Your task to perform on an android device: remove spam from my inbox in the gmail app Image 0: 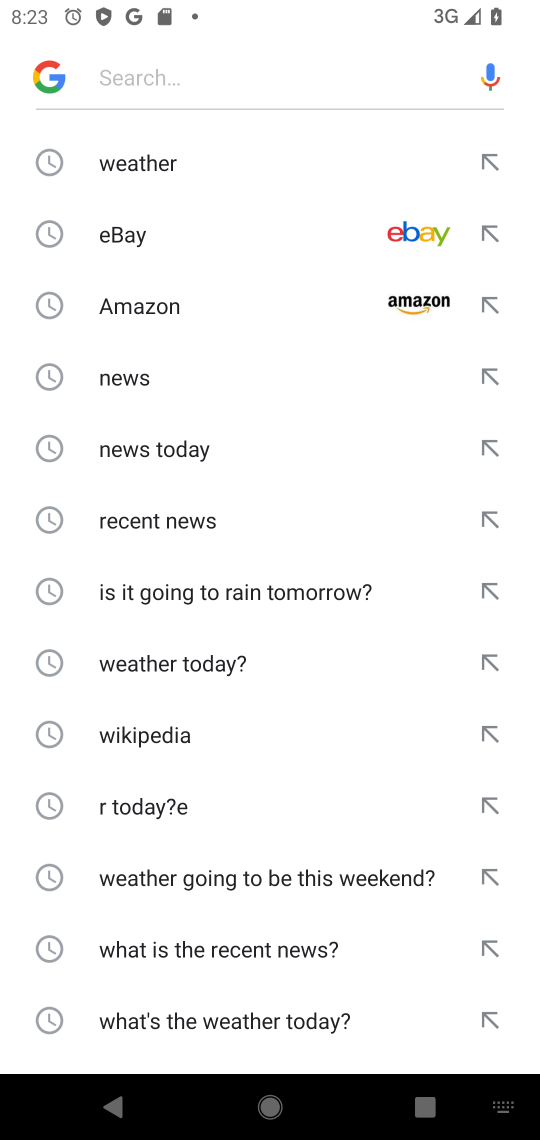
Step 0: press home button
Your task to perform on an android device: remove spam from my inbox in the gmail app Image 1: 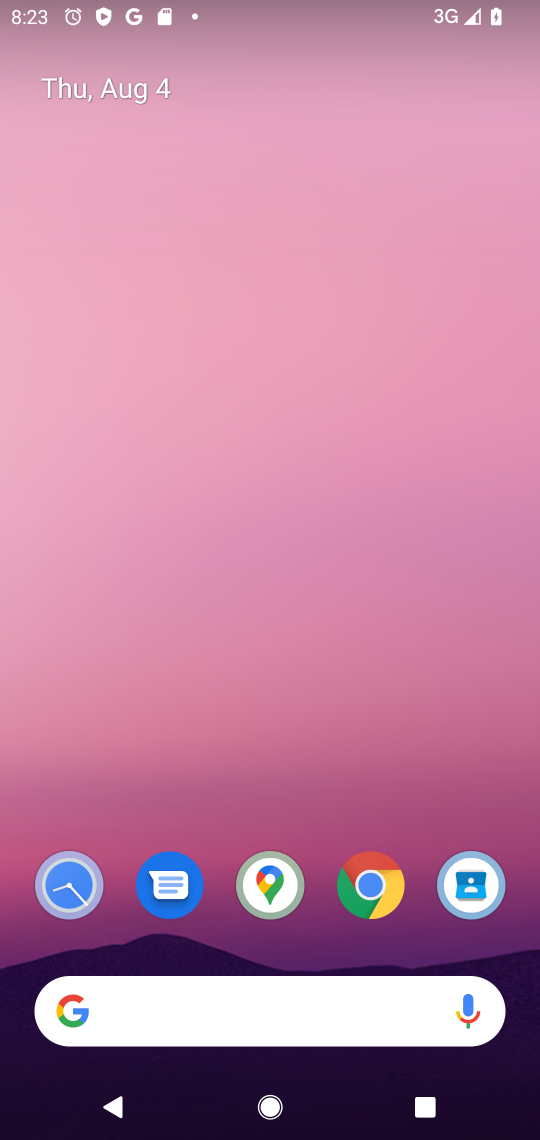
Step 1: drag from (322, 940) to (392, 0)
Your task to perform on an android device: remove spam from my inbox in the gmail app Image 2: 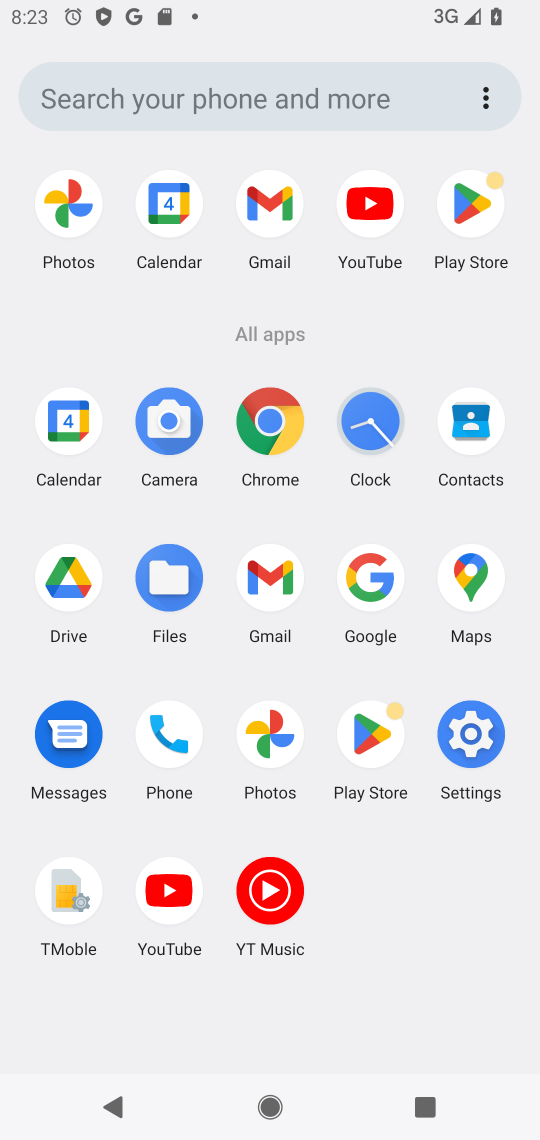
Step 2: click (270, 591)
Your task to perform on an android device: remove spam from my inbox in the gmail app Image 3: 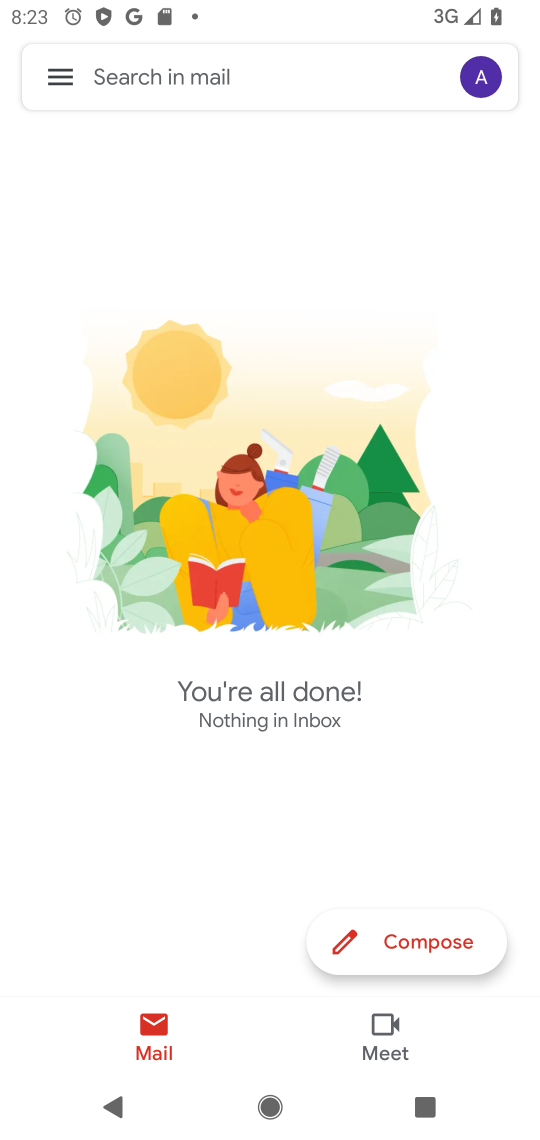
Step 3: click (66, 80)
Your task to perform on an android device: remove spam from my inbox in the gmail app Image 4: 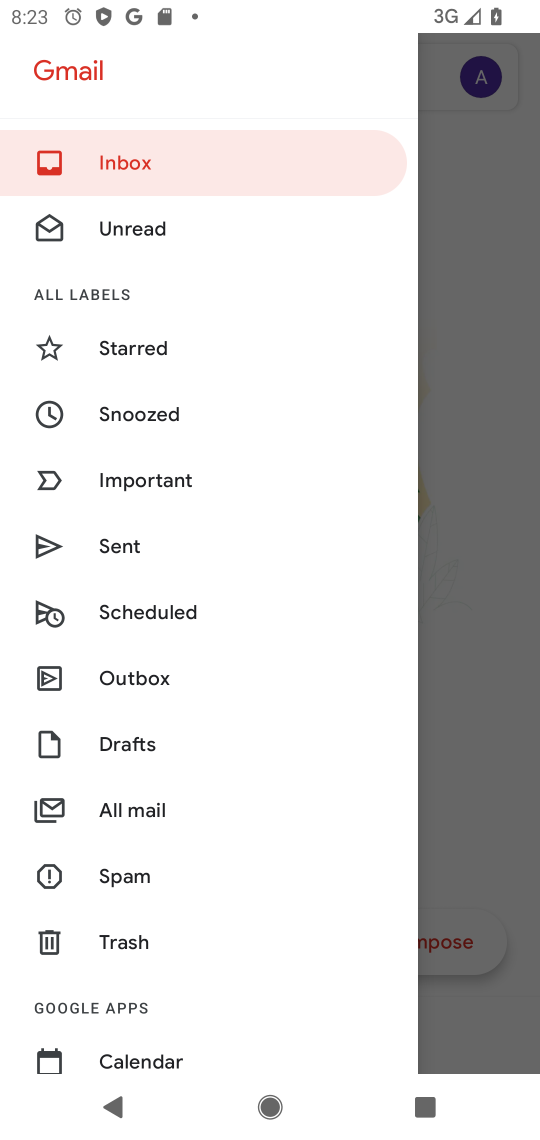
Step 4: click (138, 874)
Your task to perform on an android device: remove spam from my inbox in the gmail app Image 5: 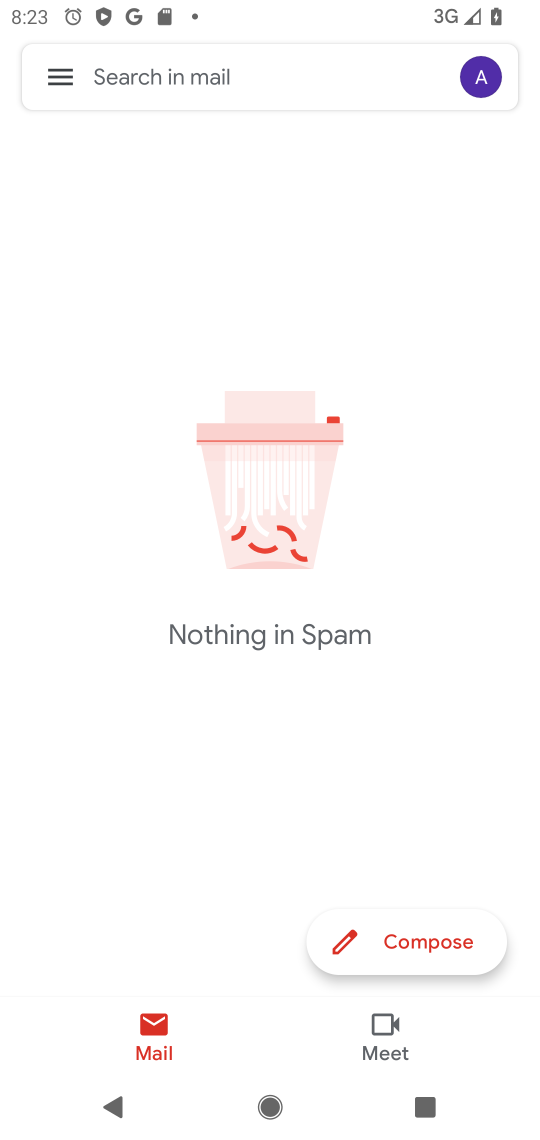
Step 5: task complete